Your task to perform on an android device: What is the news today? Image 0: 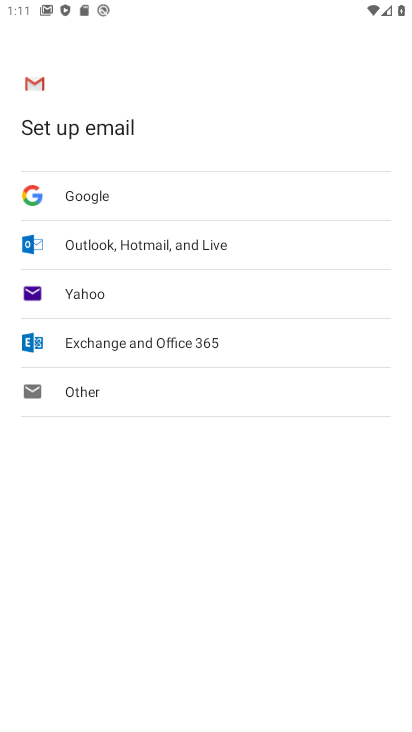
Step 0: press home button
Your task to perform on an android device: What is the news today? Image 1: 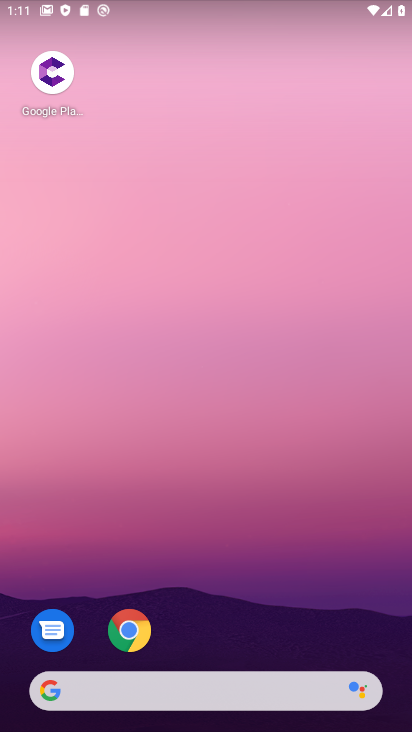
Step 1: drag from (185, 659) to (212, 212)
Your task to perform on an android device: What is the news today? Image 2: 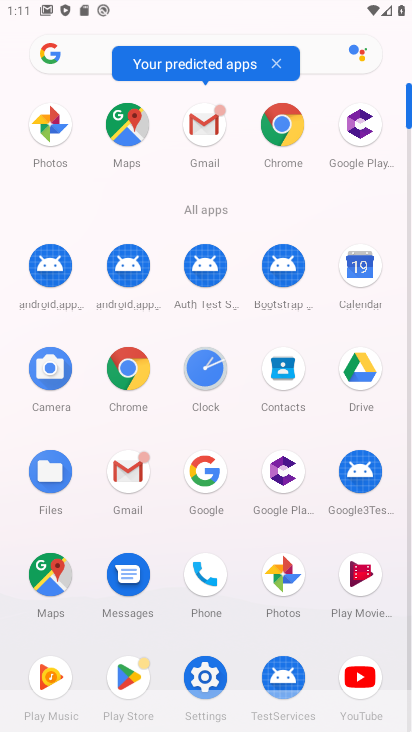
Step 2: drag from (206, 475) to (126, 149)
Your task to perform on an android device: What is the news today? Image 3: 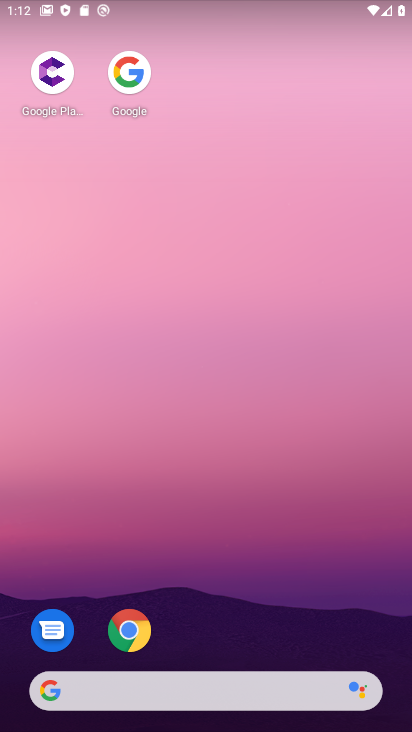
Step 3: click (133, 69)
Your task to perform on an android device: What is the news today? Image 4: 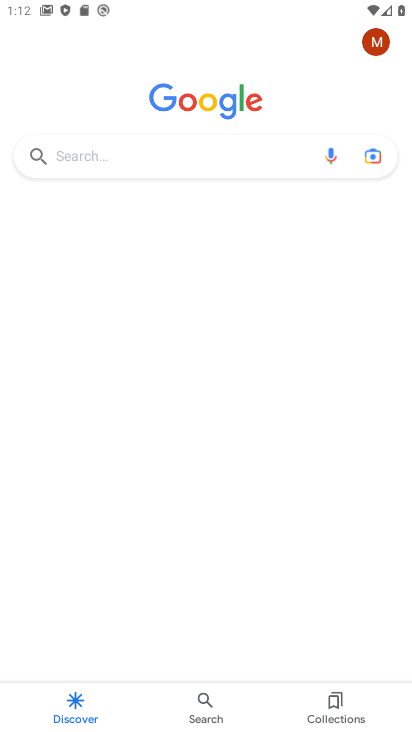
Step 4: click (167, 169)
Your task to perform on an android device: What is the news today? Image 5: 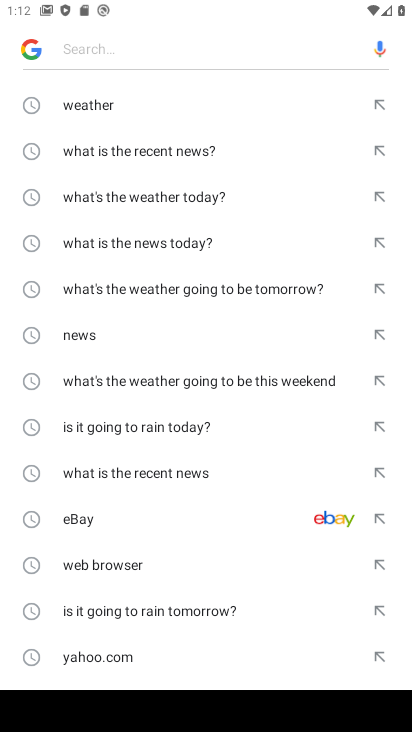
Step 5: click (94, 334)
Your task to perform on an android device: What is the news today? Image 6: 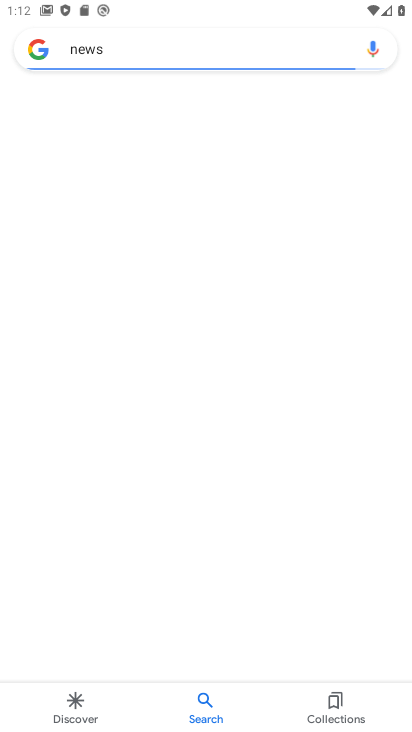
Step 6: task complete